Your task to perform on an android device: change notification settings in the gmail app Image 0: 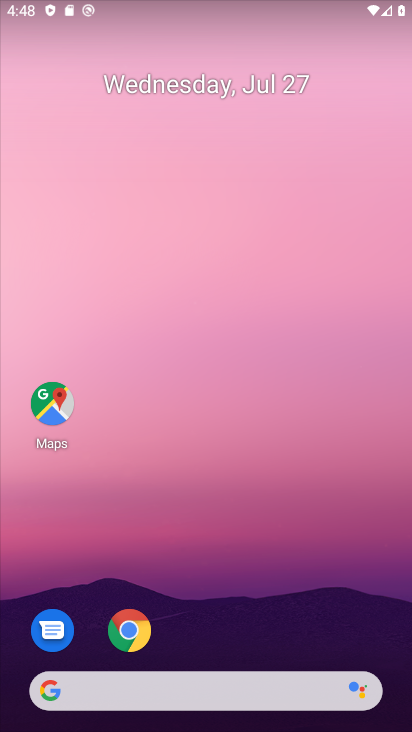
Step 0: drag from (251, 622) to (230, 43)
Your task to perform on an android device: change notification settings in the gmail app Image 1: 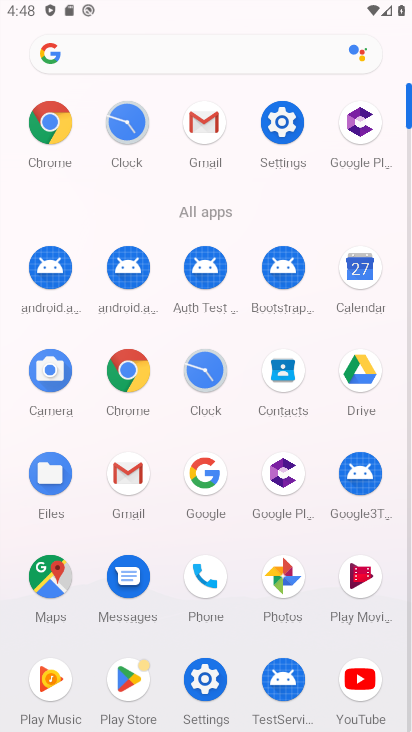
Step 1: click (201, 132)
Your task to perform on an android device: change notification settings in the gmail app Image 2: 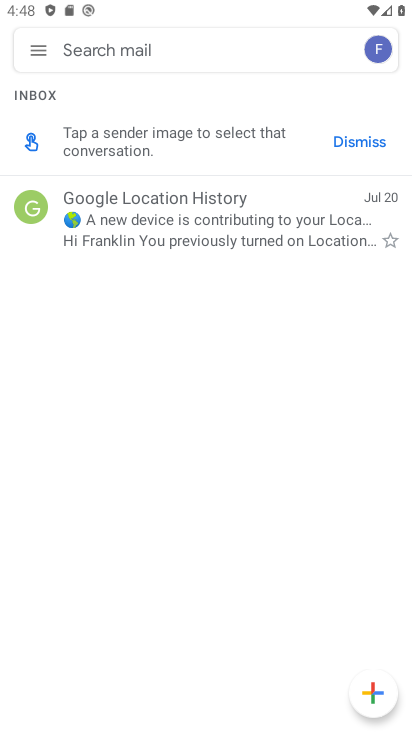
Step 2: click (32, 54)
Your task to perform on an android device: change notification settings in the gmail app Image 3: 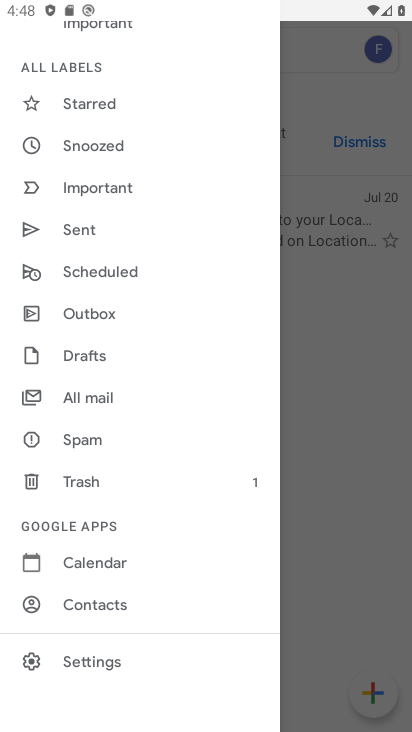
Step 3: click (130, 651)
Your task to perform on an android device: change notification settings in the gmail app Image 4: 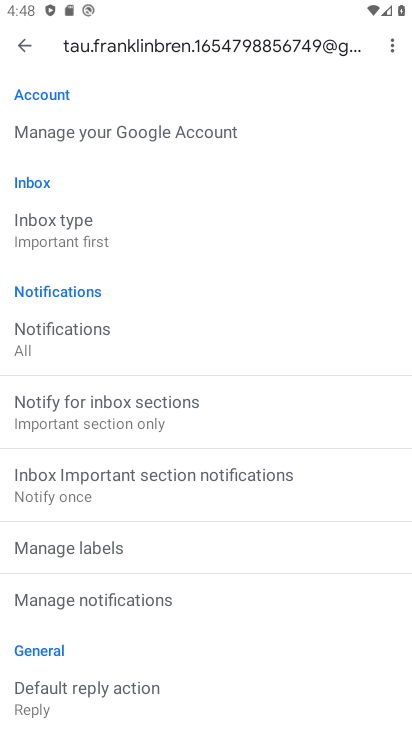
Step 4: click (187, 601)
Your task to perform on an android device: change notification settings in the gmail app Image 5: 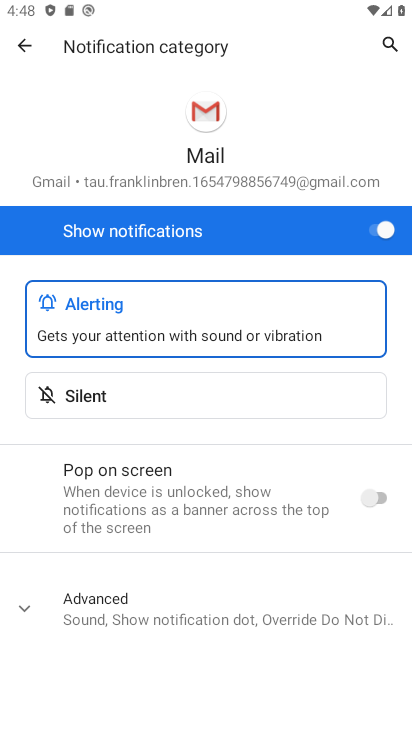
Step 5: click (207, 395)
Your task to perform on an android device: change notification settings in the gmail app Image 6: 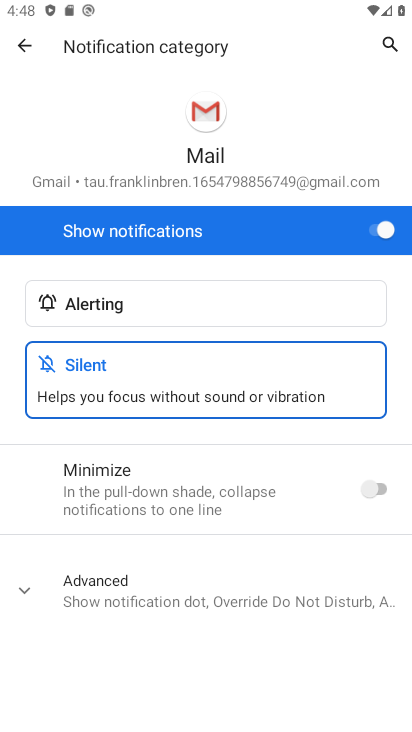
Step 6: click (342, 504)
Your task to perform on an android device: change notification settings in the gmail app Image 7: 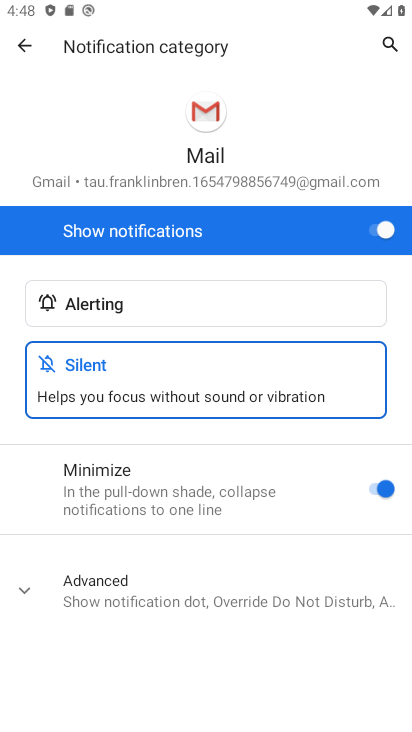
Step 7: task complete